Your task to perform on an android device: set an alarm Image 0: 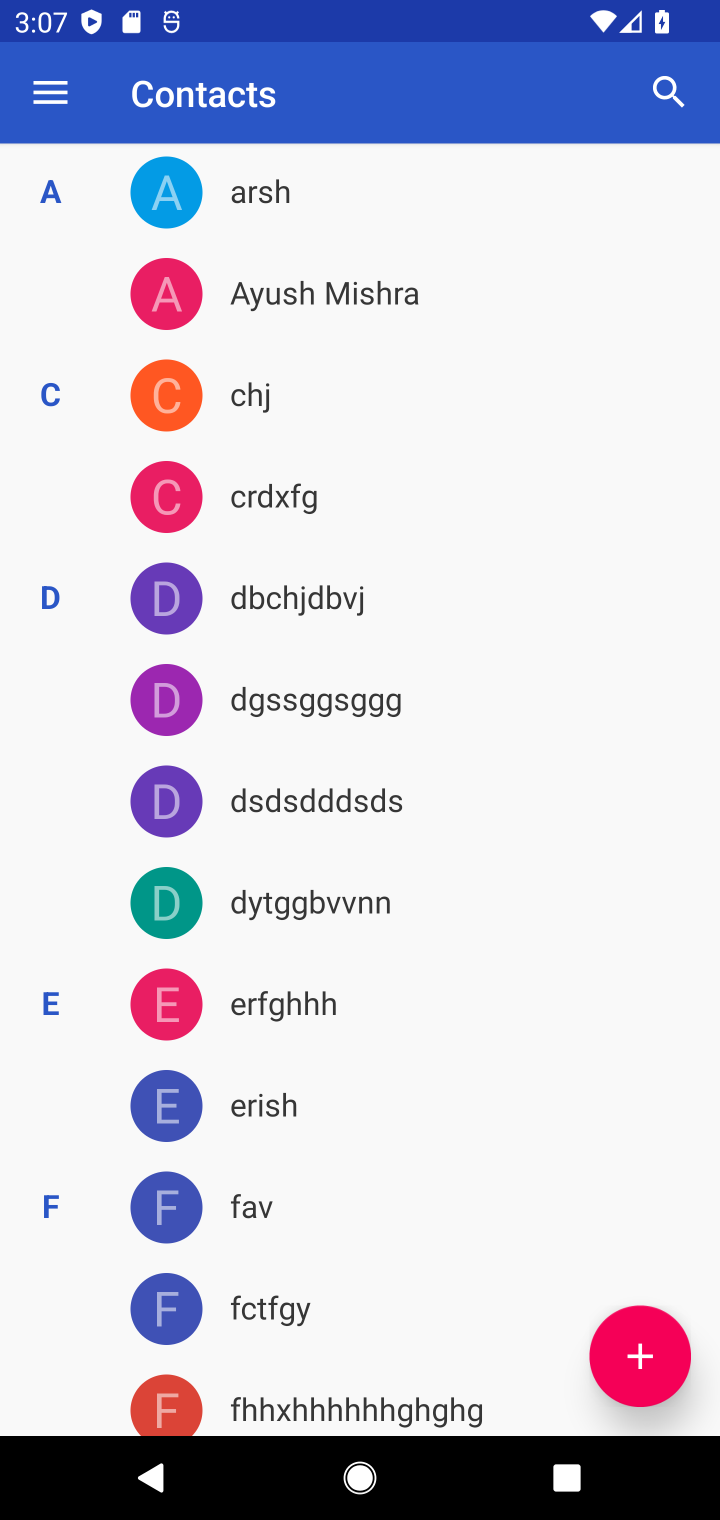
Step 0: press home button
Your task to perform on an android device: set an alarm Image 1: 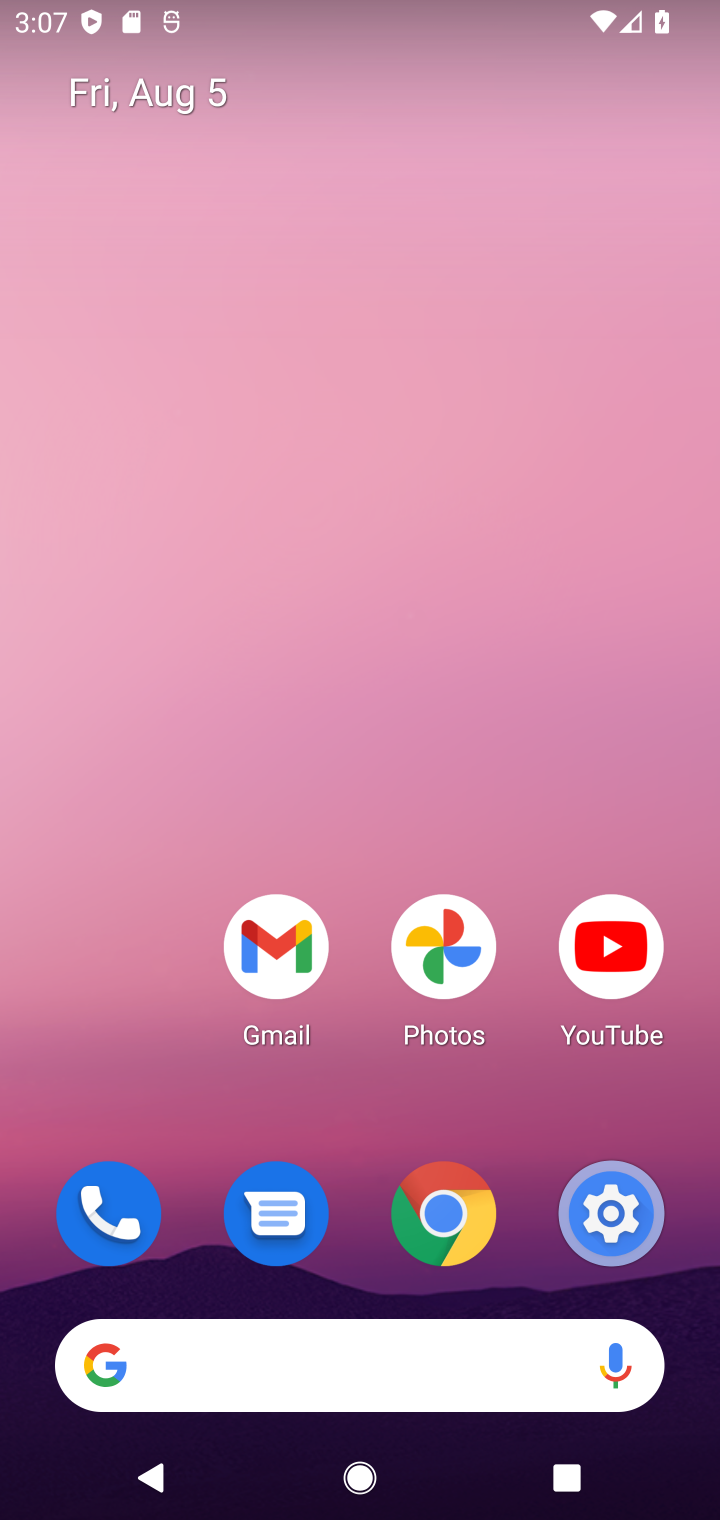
Step 1: drag from (130, 1058) to (223, 2)
Your task to perform on an android device: set an alarm Image 2: 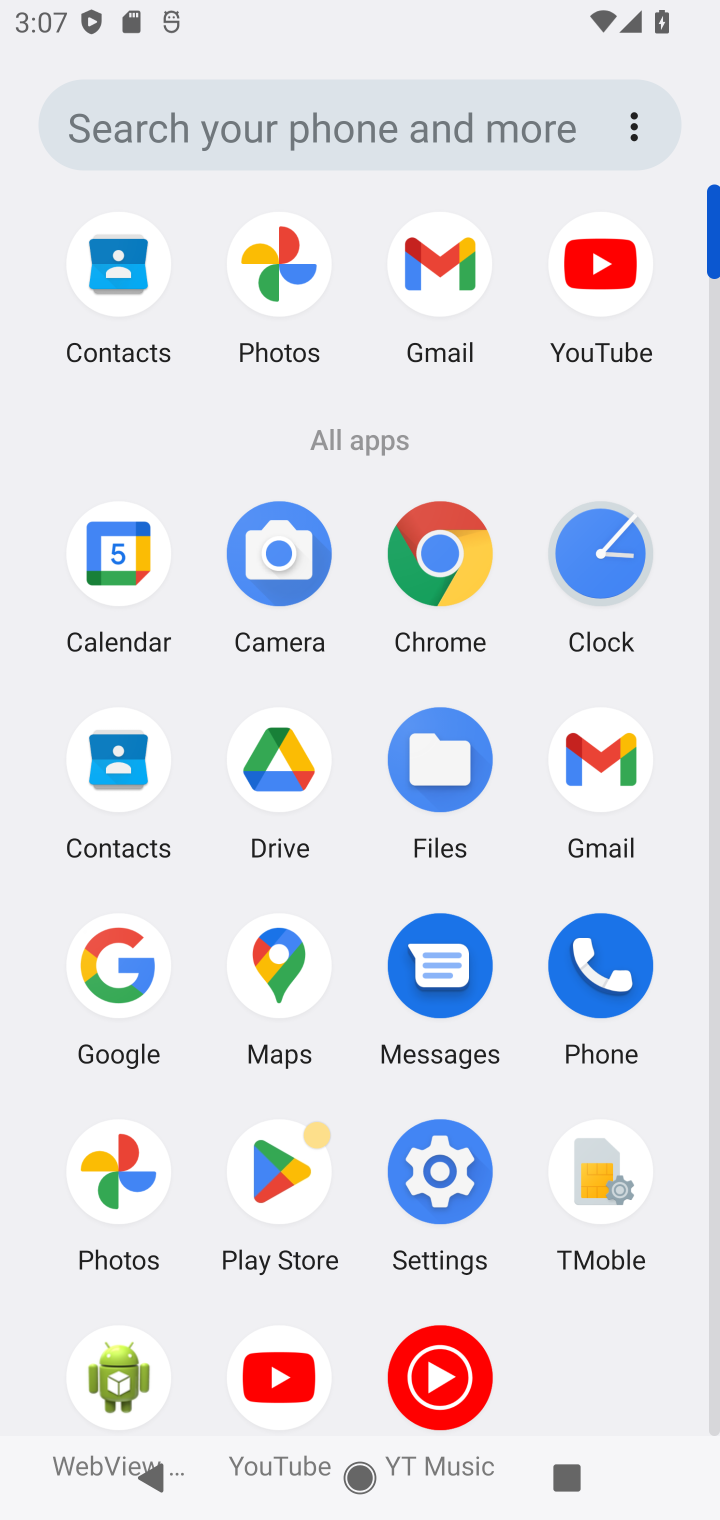
Step 2: click (608, 559)
Your task to perform on an android device: set an alarm Image 3: 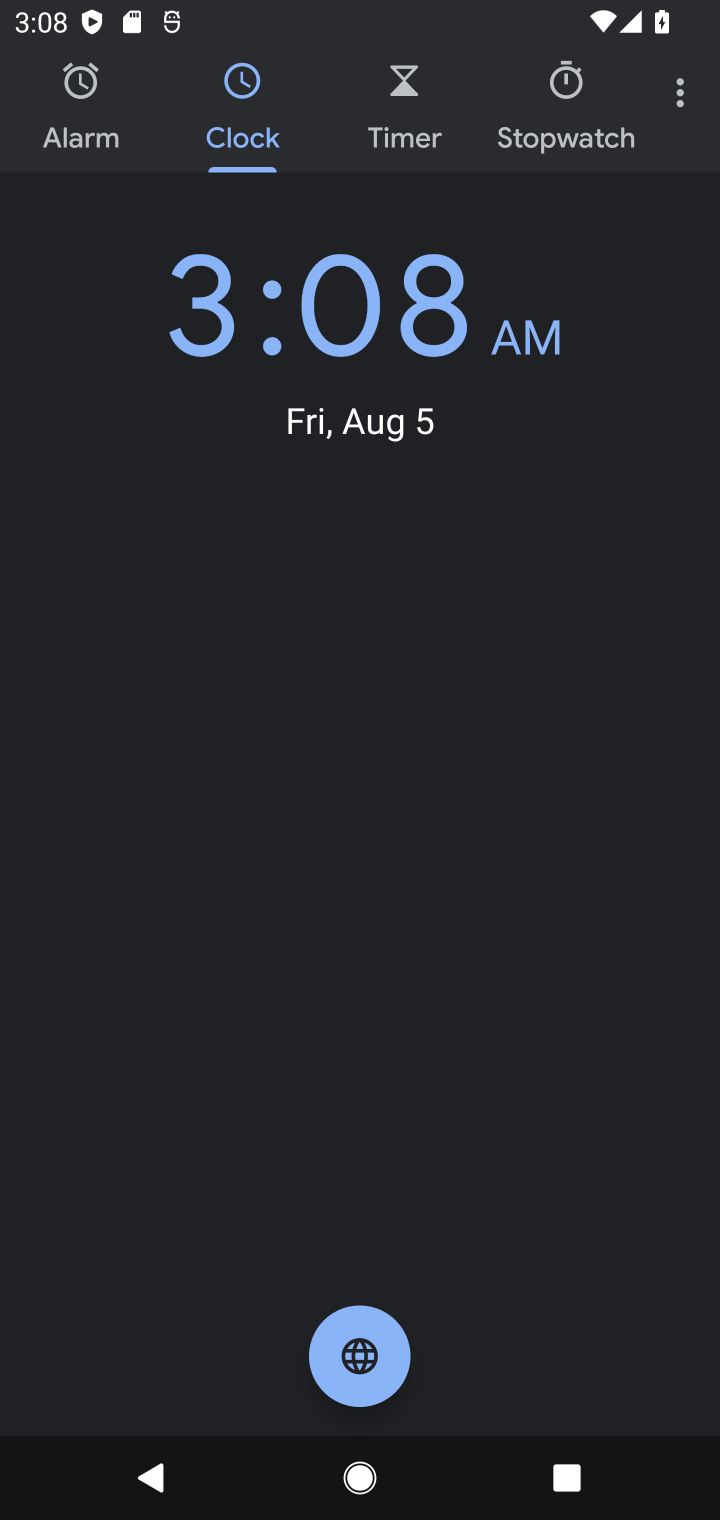
Step 3: click (93, 95)
Your task to perform on an android device: set an alarm Image 4: 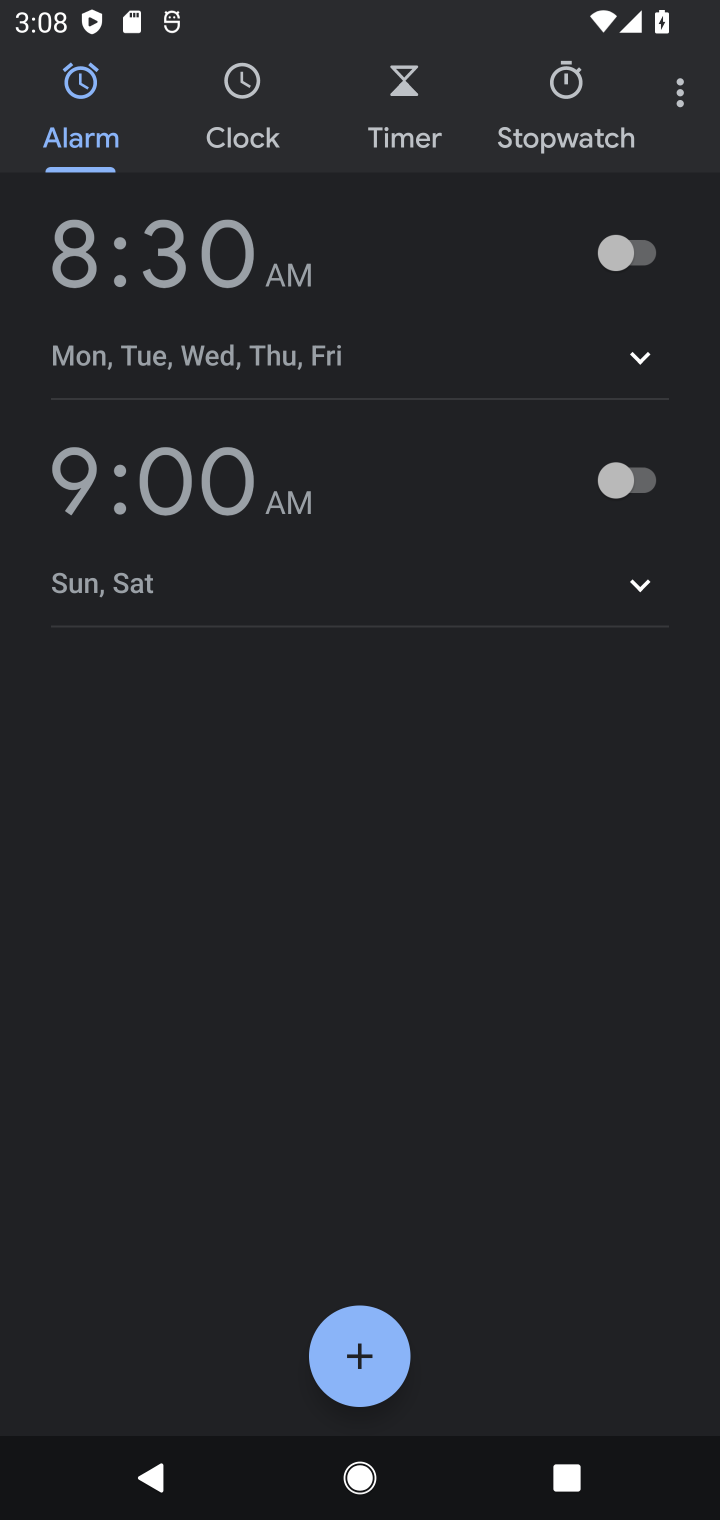
Step 4: click (352, 1354)
Your task to perform on an android device: set an alarm Image 5: 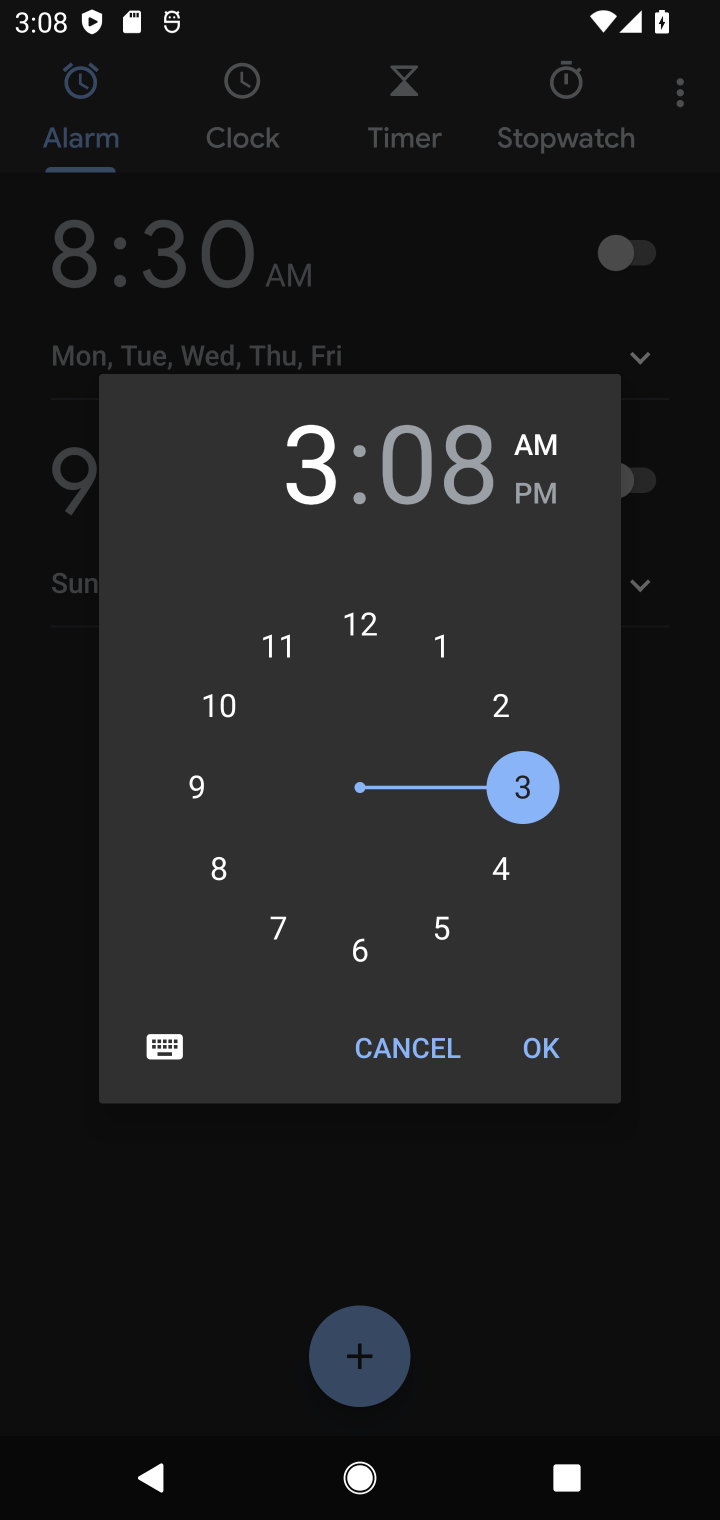
Step 5: click (438, 466)
Your task to perform on an android device: set an alarm Image 6: 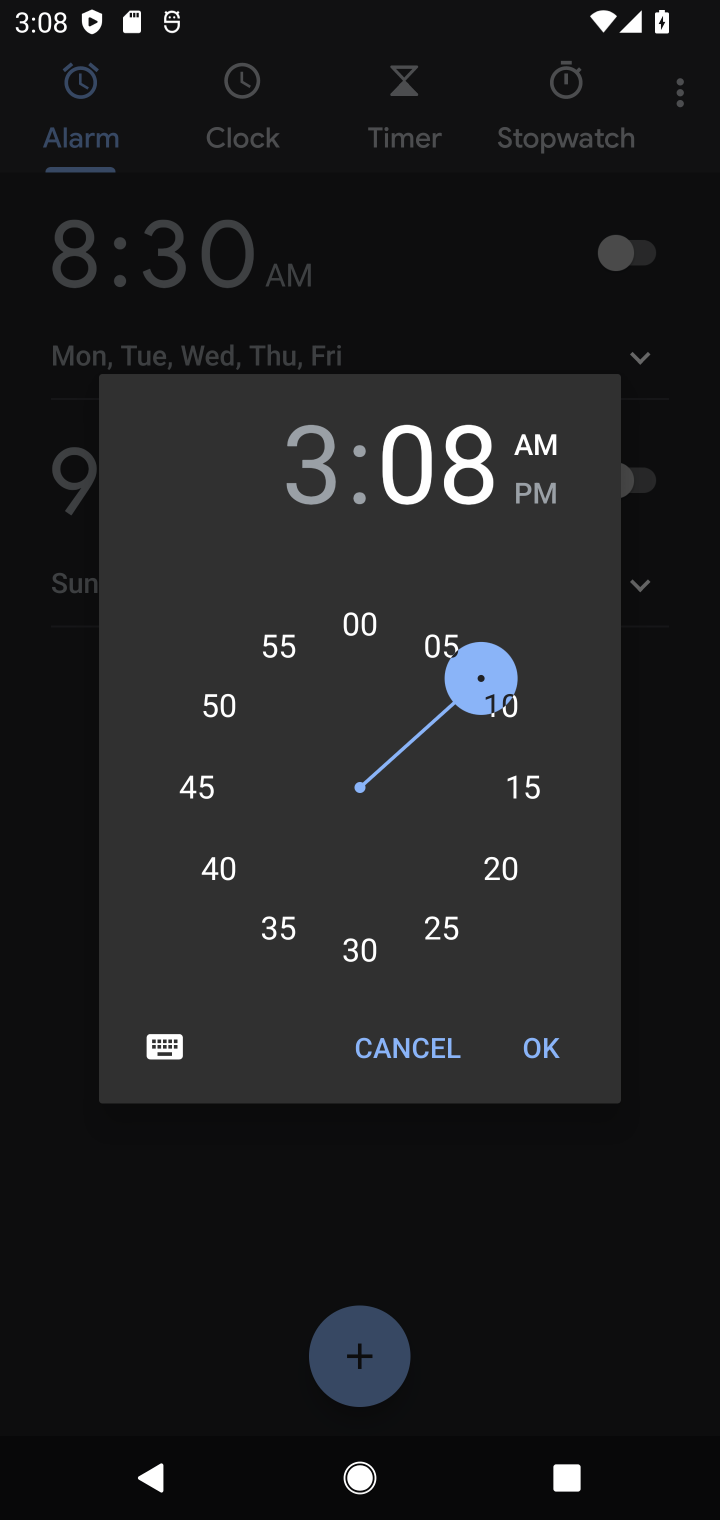
Step 6: click (360, 626)
Your task to perform on an android device: set an alarm Image 7: 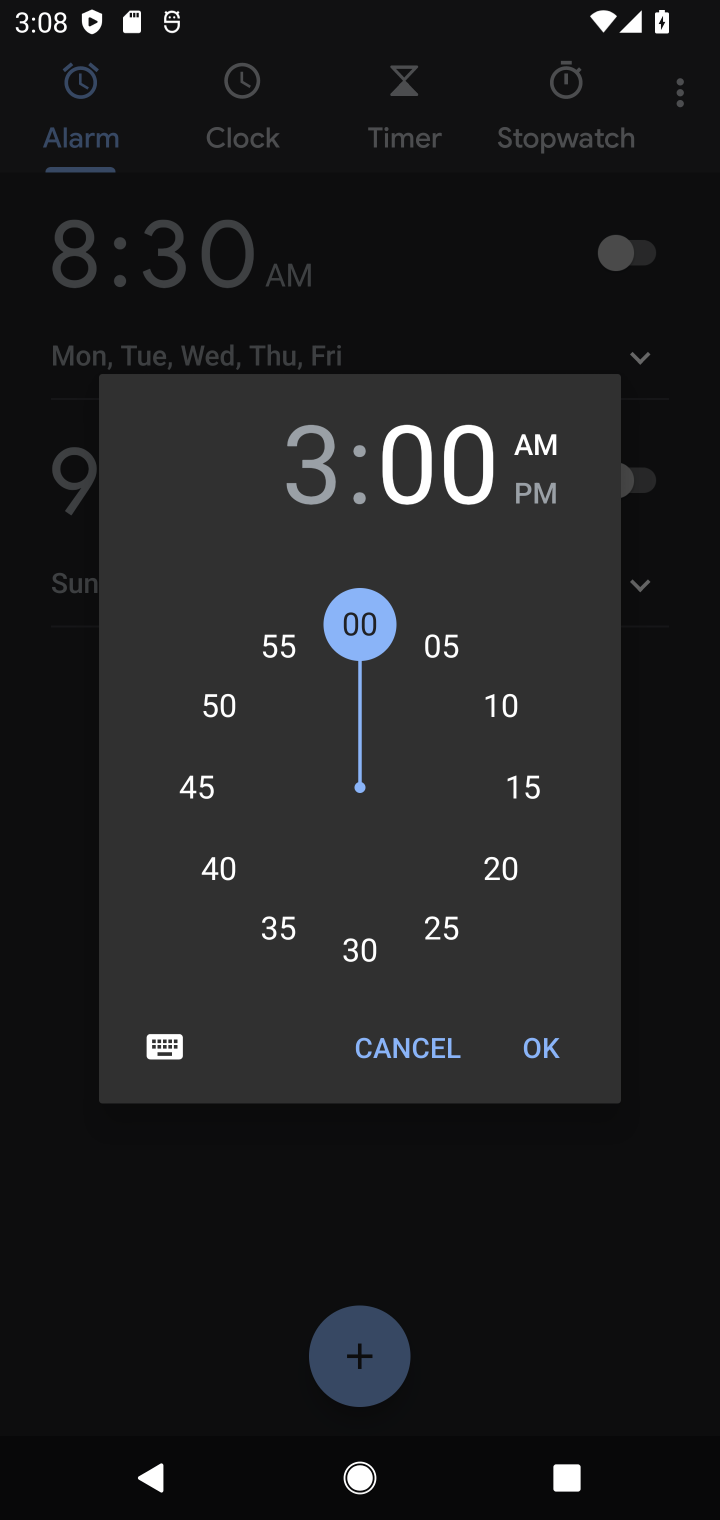
Step 7: click (544, 1044)
Your task to perform on an android device: set an alarm Image 8: 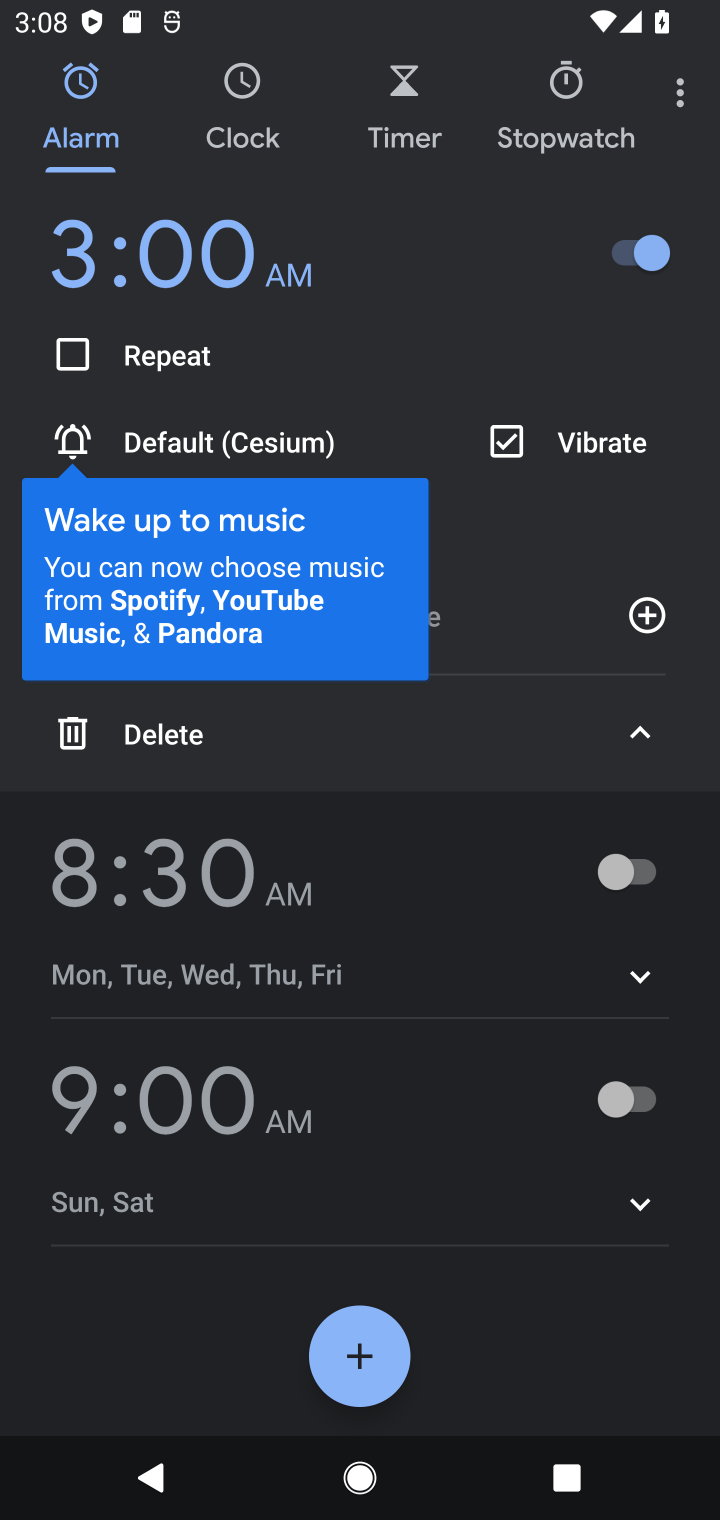
Step 8: task complete